Your task to perform on an android device: change text size in settings app Image 0: 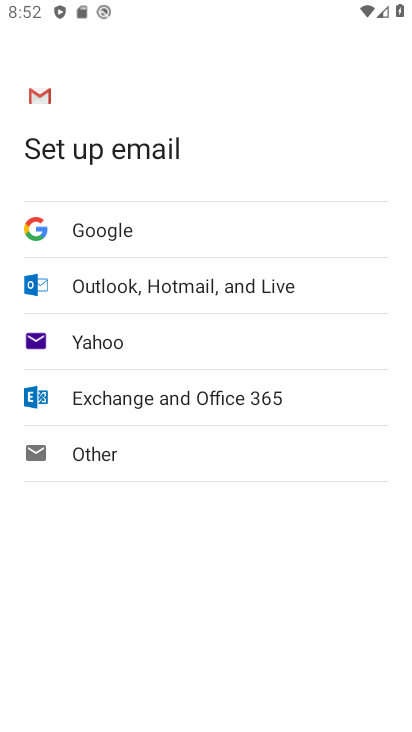
Step 0: press home button
Your task to perform on an android device: change text size in settings app Image 1: 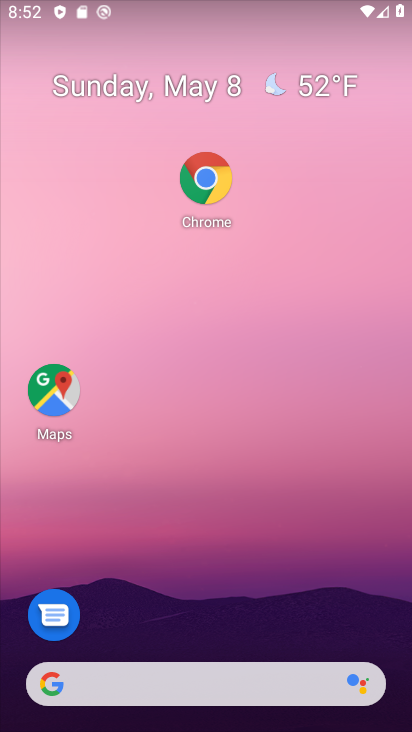
Step 1: drag from (223, 656) to (254, 365)
Your task to perform on an android device: change text size in settings app Image 2: 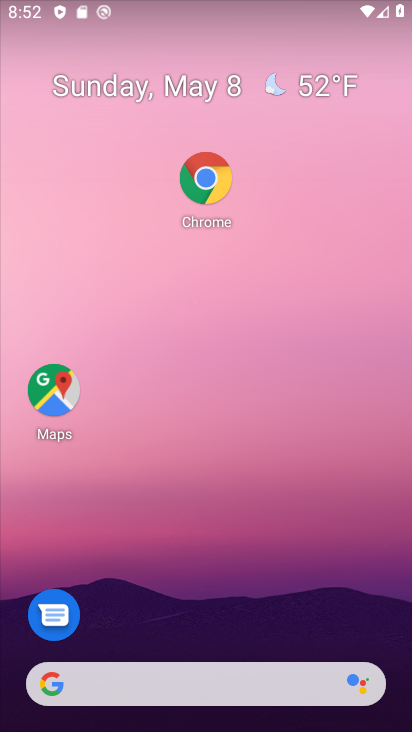
Step 2: drag from (181, 438) to (198, 267)
Your task to perform on an android device: change text size in settings app Image 3: 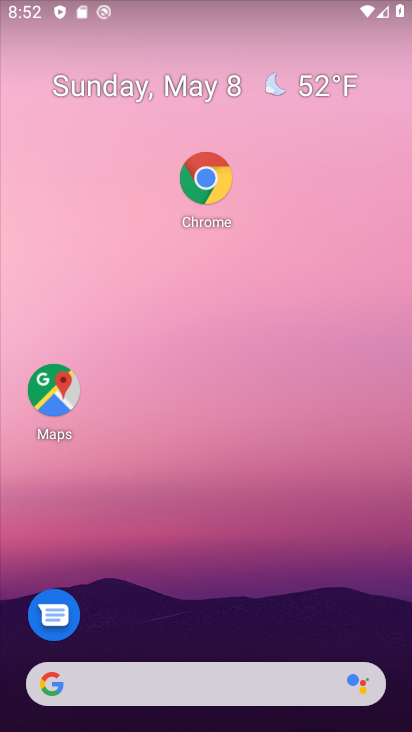
Step 3: drag from (118, 552) to (164, 221)
Your task to perform on an android device: change text size in settings app Image 4: 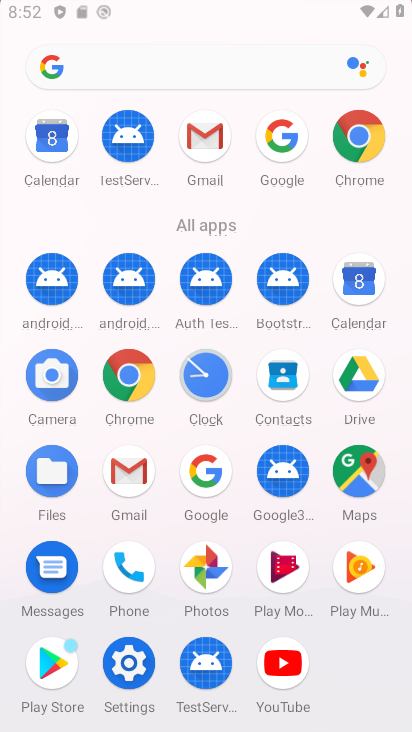
Step 4: drag from (179, 618) to (188, 177)
Your task to perform on an android device: change text size in settings app Image 5: 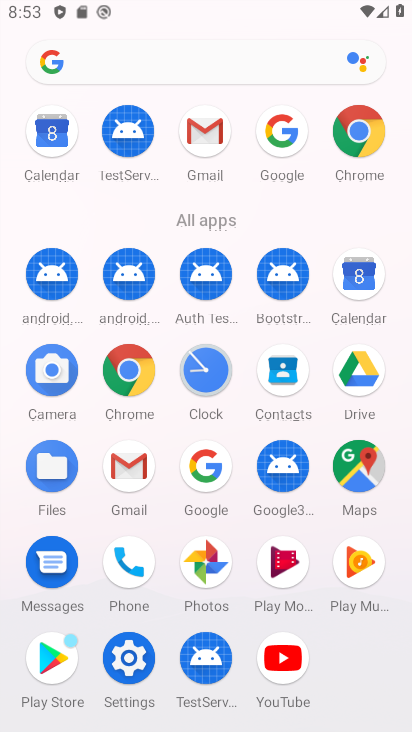
Step 5: click (129, 652)
Your task to perform on an android device: change text size in settings app Image 6: 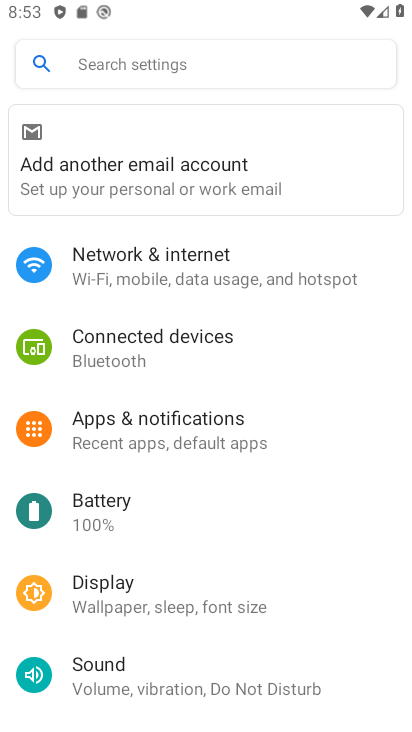
Step 6: drag from (169, 649) to (211, 324)
Your task to perform on an android device: change text size in settings app Image 7: 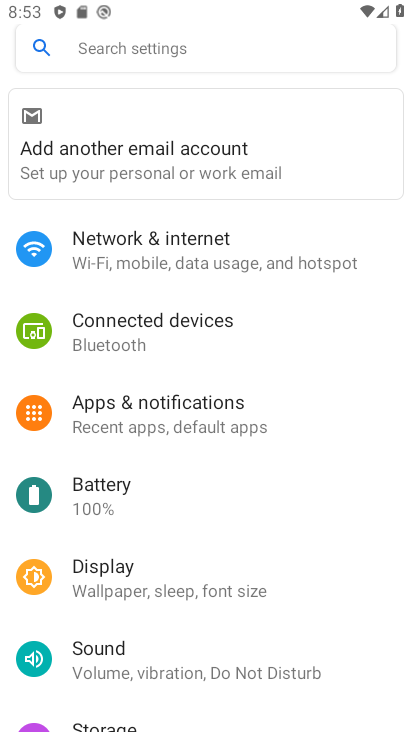
Step 7: drag from (136, 721) to (166, 350)
Your task to perform on an android device: change text size in settings app Image 8: 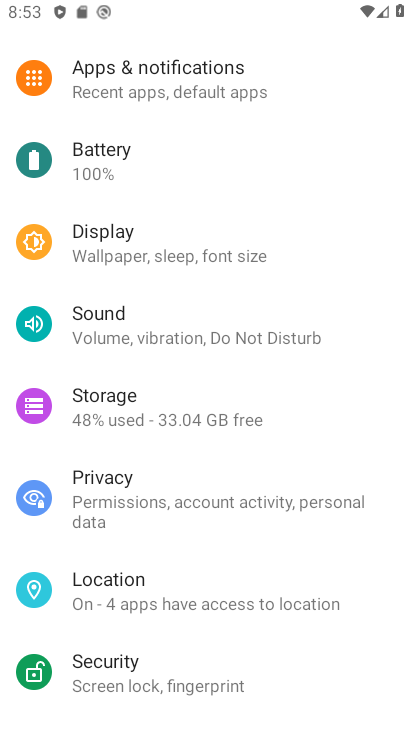
Step 8: drag from (158, 530) to (181, 266)
Your task to perform on an android device: change text size in settings app Image 9: 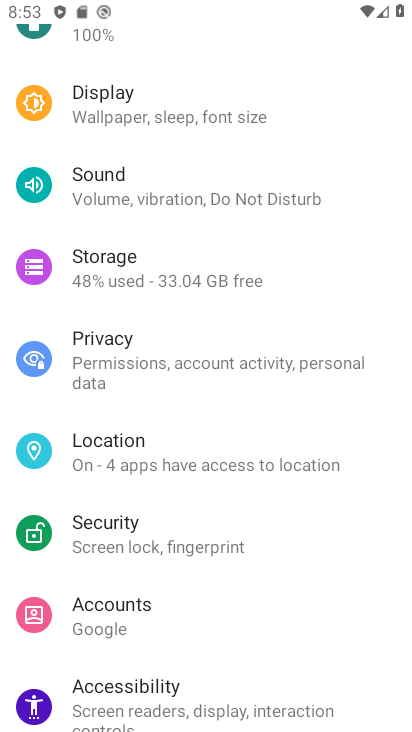
Step 9: click (137, 703)
Your task to perform on an android device: change text size in settings app Image 10: 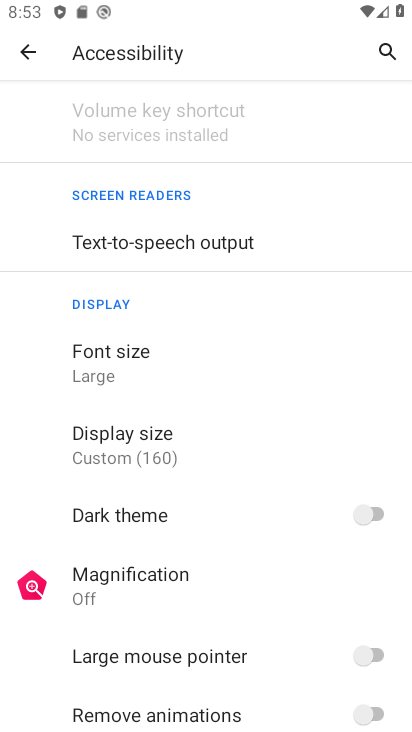
Step 10: click (123, 353)
Your task to perform on an android device: change text size in settings app Image 11: 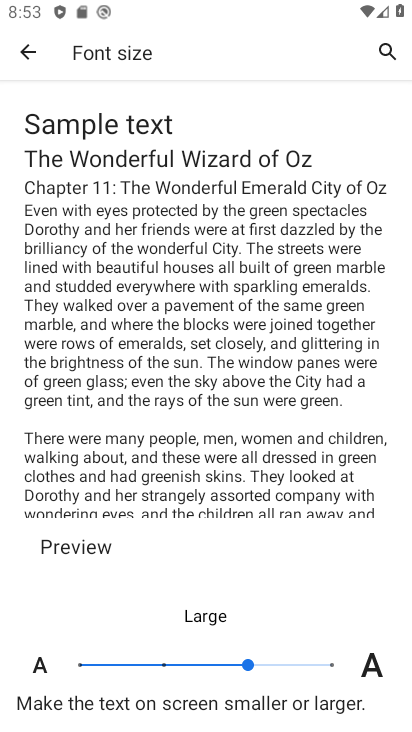
Step 11: click (168, 663)
Your task to perform on an android device: change text size in settings app Image 12: 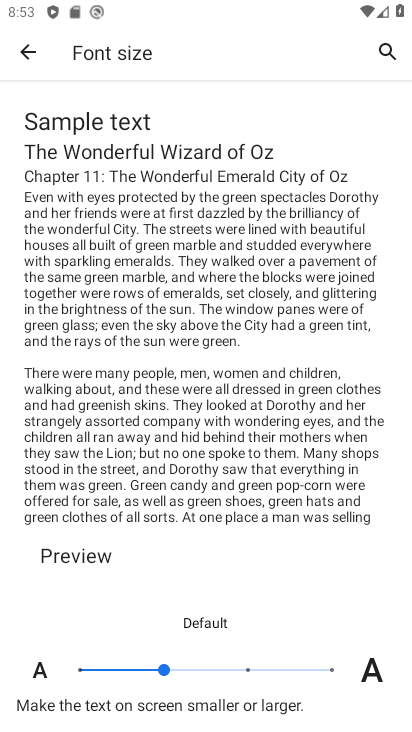
Step 12: task complete